Your task to perform on an android device: Check the news Image 0: 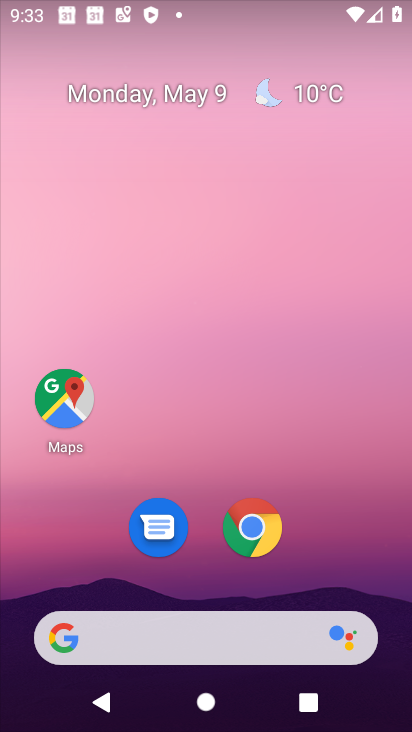
Step 0: drag from (174, 570) to (223, 73)
Your task to perform on an android device: Check the news Image 1: 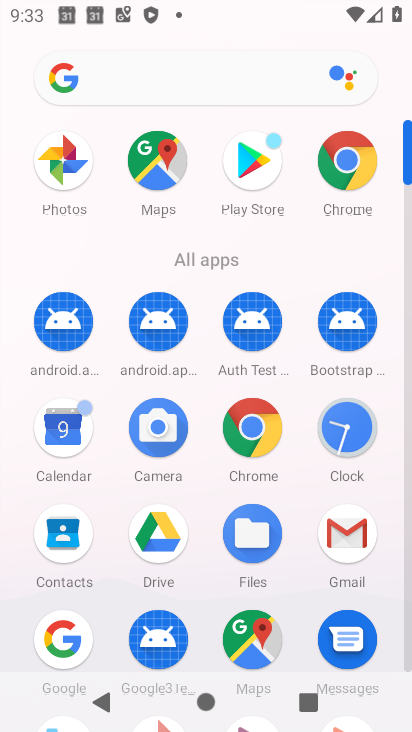
Step 1: click (258, 426)
Your task to perform on an android device: Check the news Image 2: 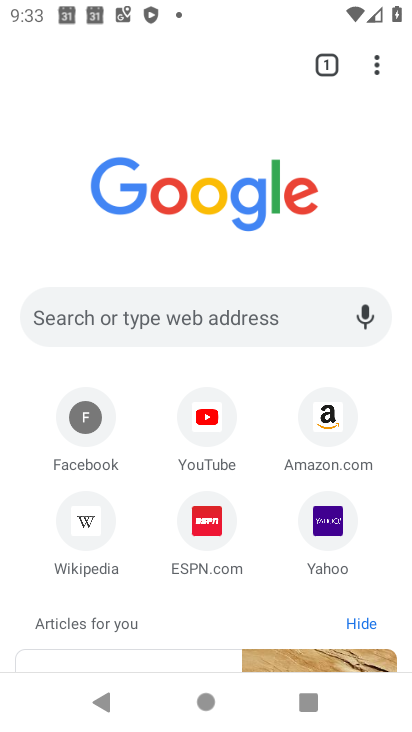
Step 2: click (299, 314)
Your task to perform on an android device: Check the news Image 3: 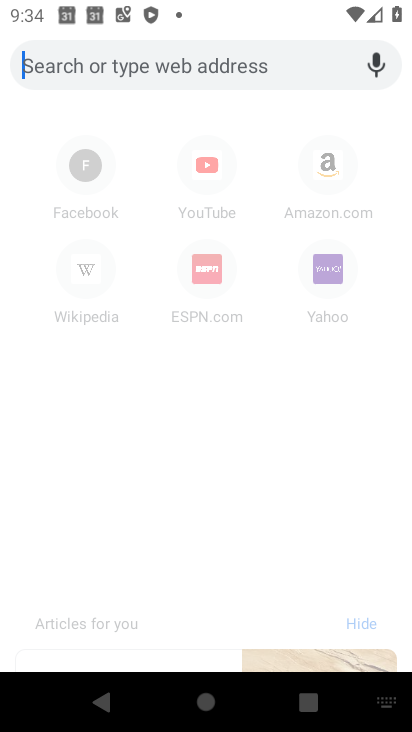
Step 3: type "check the news"
Your task to perform on an android device: Check the news Image 4: 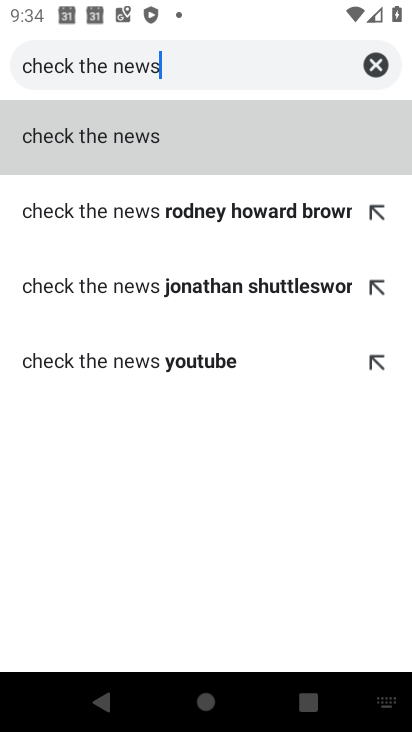
Step 4: click (287, 144)
Your task to perform on an android device: Check the news Image 5: 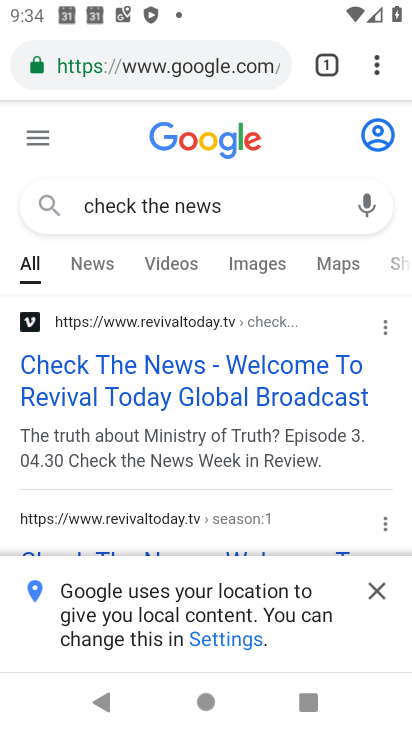
Step 5: task complete